Your task to perform on an android device: turn off javascript in the chrome app Image 0: 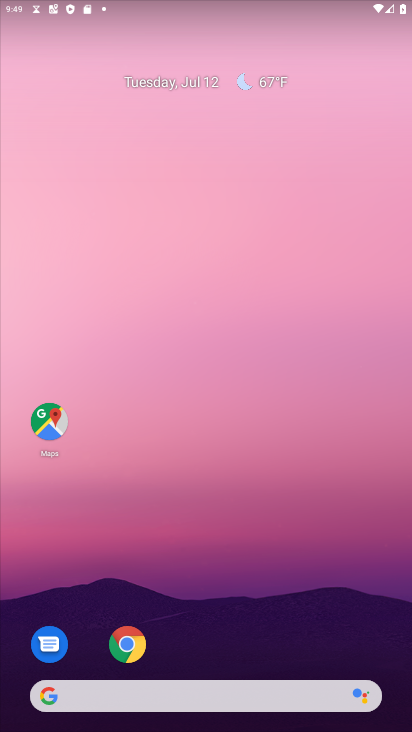
Step 0: drag from (205, 548) to (315, 112)
Your task to perform on an android device: turn off javascript in the chrome app Image 1: 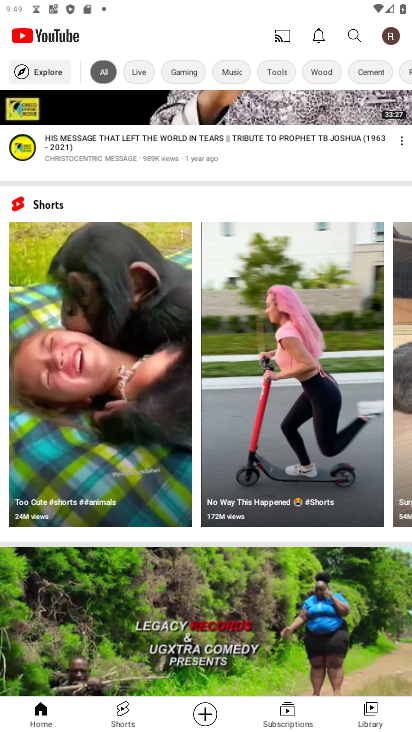
Step 1: drag from (235, 154) to (291, 730)
Your task to perform on an android device: turn off javascript in the chrome app Image 2: 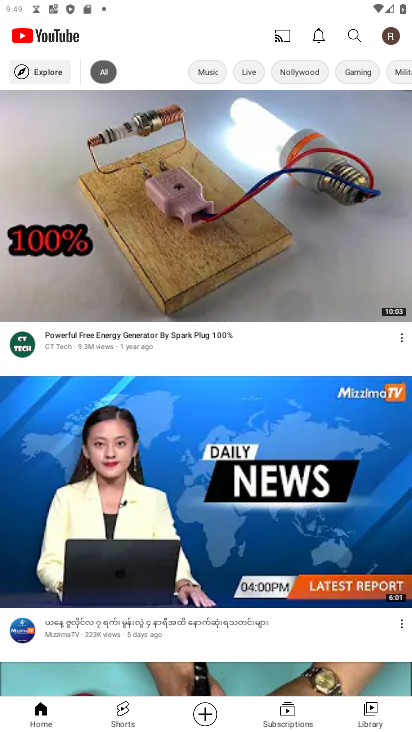
Step 2: press home button
Your task to perform on an android device: turn off javascript in the chrome app Image 3: 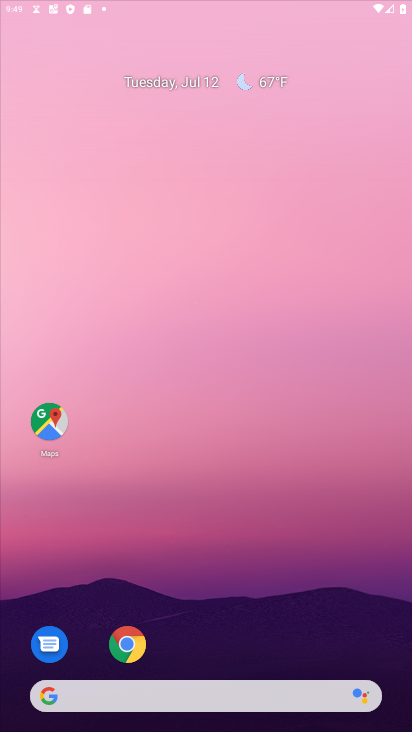
Step 3: drag from (193, 668) to (291, 127)
Your task to perform on an android device: turn off javascript in the chrome app Image 4: 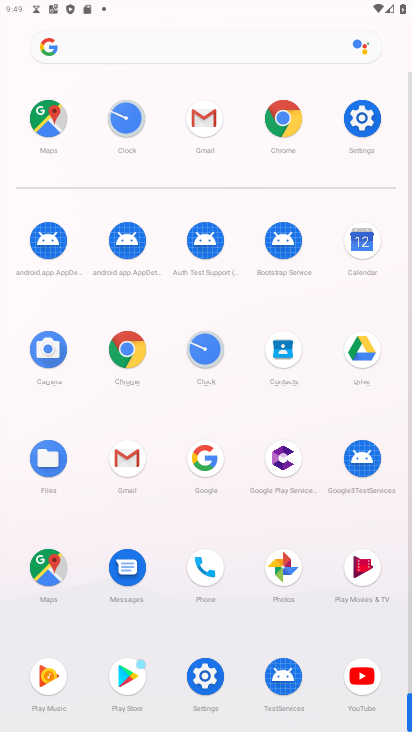
Step 4: click (290, 119)
Your task to perform on an android device: turn off javascript in the chrome app Image 5: 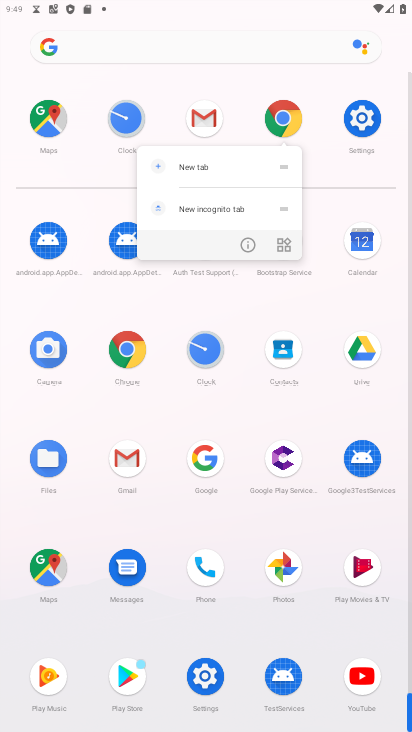
Step 5: click (247, 240)
Your task to perform on an android device: turn off javascript in the chrome app Image 6: 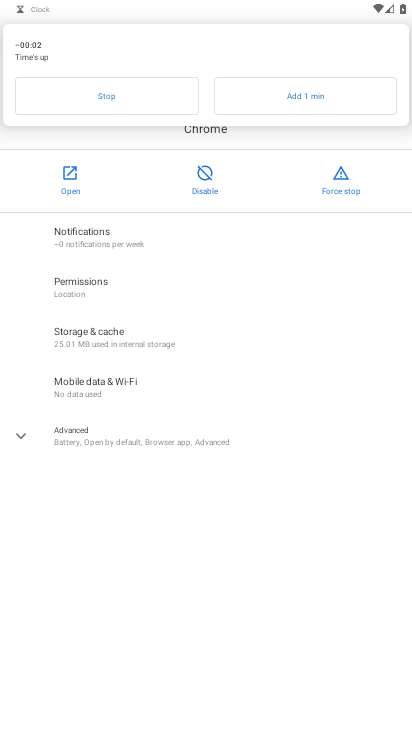
Step 6: click (135, 95)
Your task to perform on an android device: turn off javascript in the chrome app Image 7: 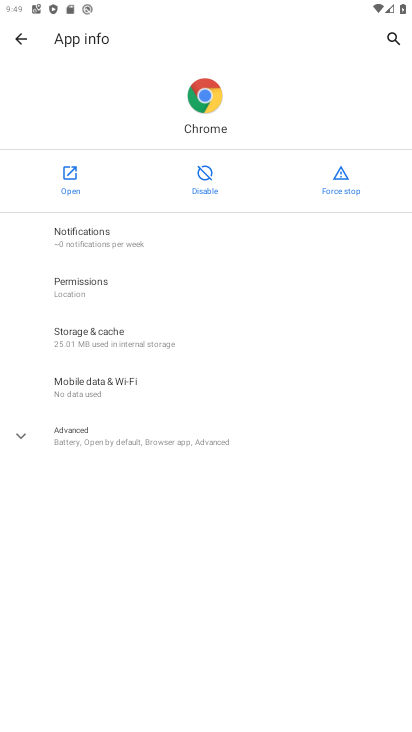
Step 7: click (61, 190)
Your task to perform on an android device: turn off javascript in the chrome app Image 8: 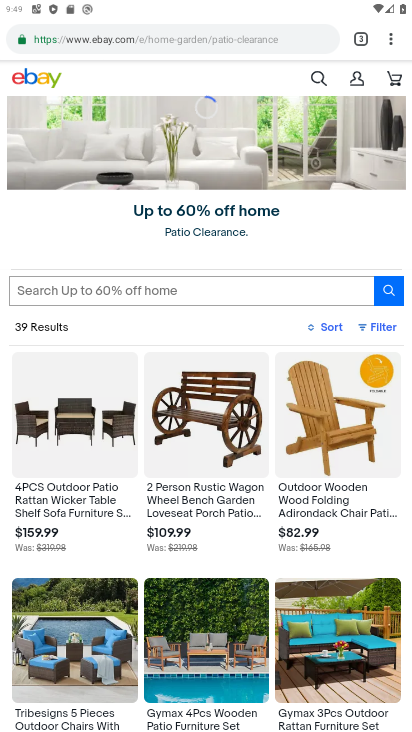
Step 8: drag from (224, 465) to (280, 197)
Your task to perform on an android device: turn off javascript in the chrome app Image 9: 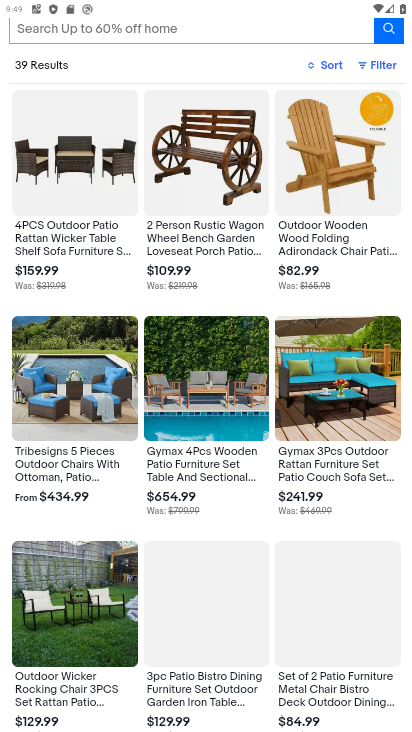
Step 9: drag from (331, 195) to (382, 620)
Your task to perform on an android device: turn off javascript in the chrome app Image 10: 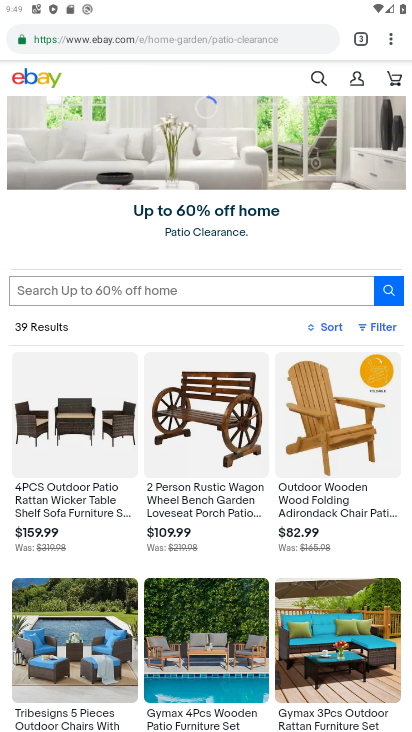
Step 10: click (388, 39)
Your task to perform on an android device: turn off javascript in the chrome app Image 11: 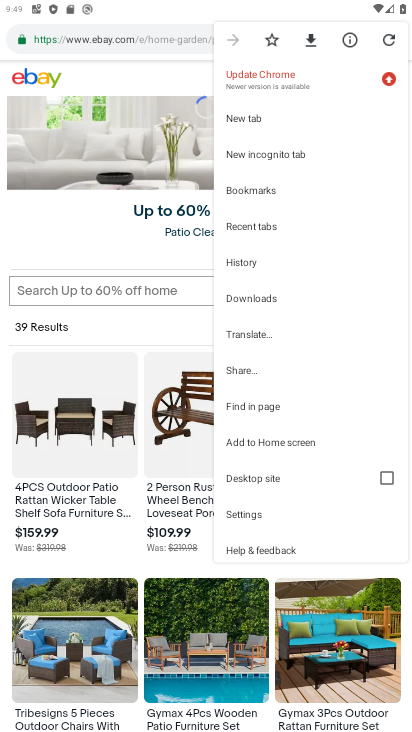
Step 11: click (258, 514)
Your task to perform on an android device: turn off javascript in the chrome app Image 12: 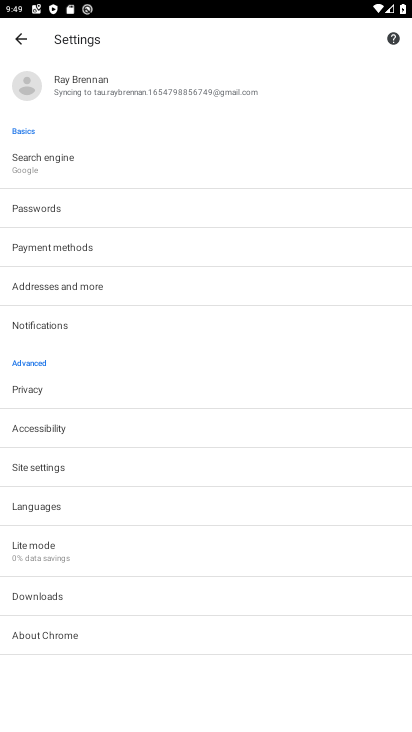
Step 12: click (57, 471)
Your task to perform on an android device: turn off javascript in the chrome app Image 13: 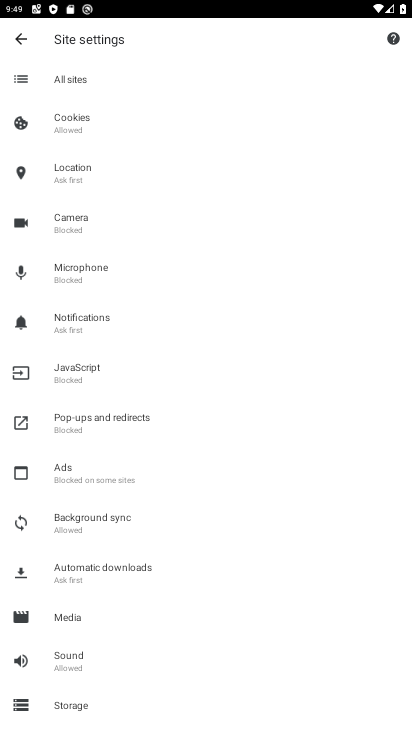
Step 13: drag from (166, 482) to (177, 248)
Your task to perform on an android device: turn off javascript in the chrome app Image 14: 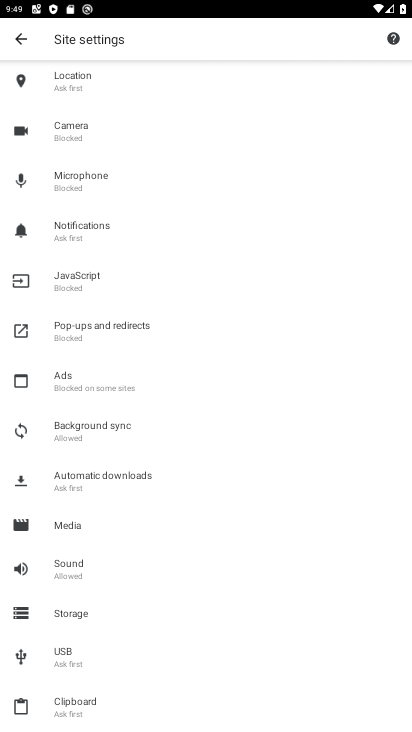
Step 14: drag from (192, 200) to (246, 637)
Your task to perform on an android device: turn off javascript in the chrome app Image 15: 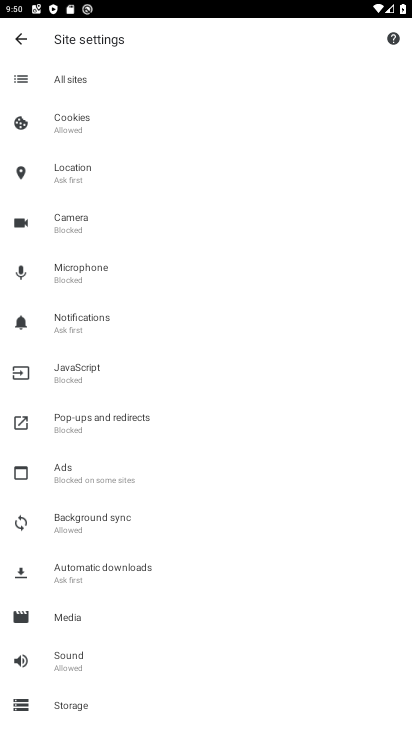
Step 15: click (103, 371)
Your task to perform on an android device: turn off javascript in the chrome app Image 16: 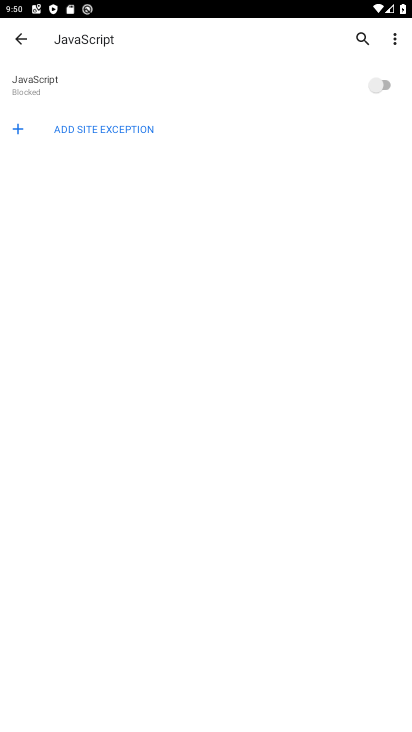
Step 16: task complete